Your task to perform on an android device: delete browsing data in the chrome app Image 0: 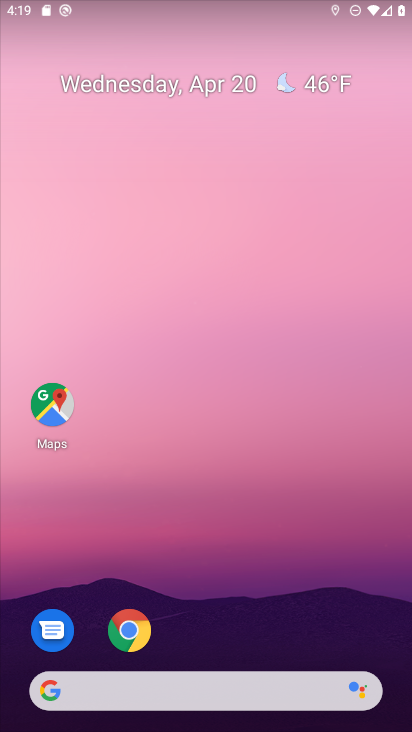
Step 0: click (240, 5)
Your task to perform on an android device: delete browsing data in the chrome app Image 1: 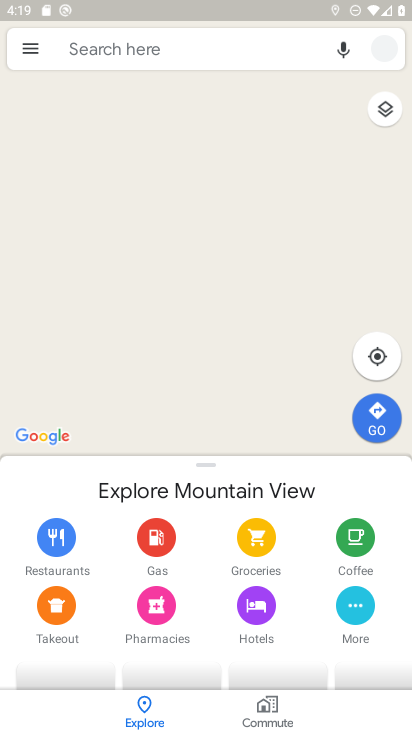
Step 1: press home button
Your task to perform on an android device: delete browsing data in the chrome app Image 2: 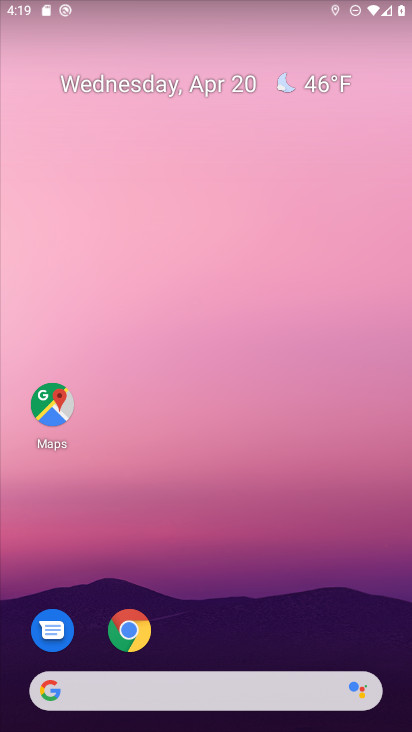
Step 2: drag from (259, 610) to (320, 19)
Your task to perform on an android device: delete browsing data in the chrome app Image 3: 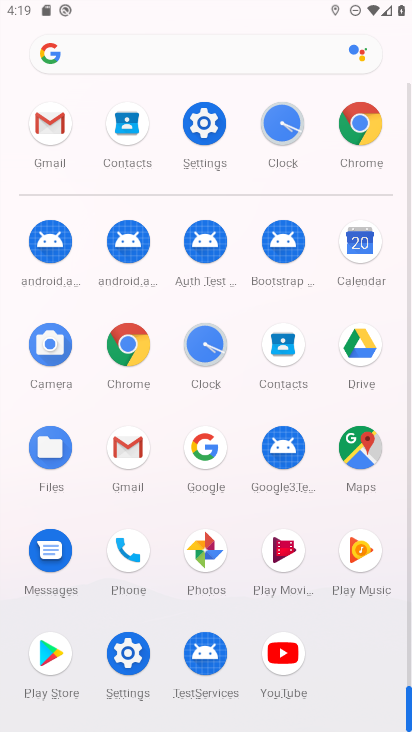
Step 3: click (125, 353)
Your task to perform on an android device: delete browsing data in the chrome app Image 4: 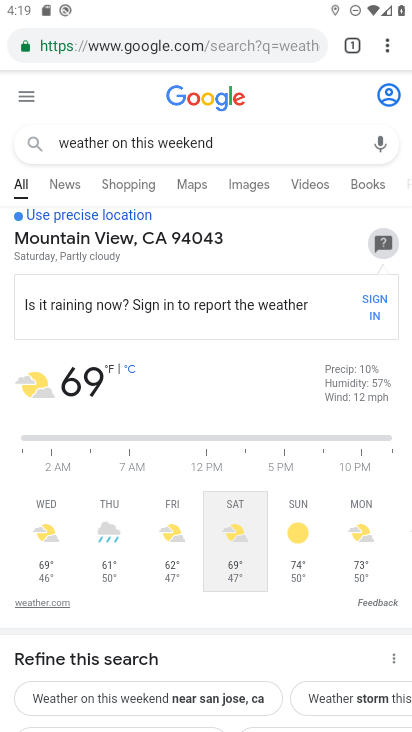
Step 4: click (380, 52)
Your task to perform on an android device: delete browsing data in the chrome app Image 5: 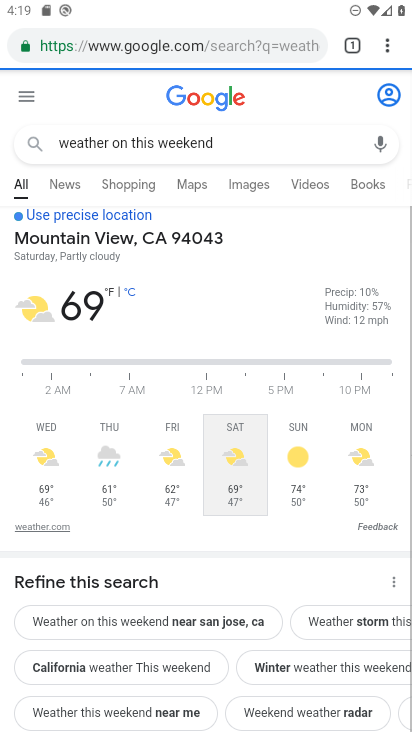
Step 5: drag from (381, 50) to (250, 306)
Your task to perform on an android device: delete browsing data in the chrome app Image 6: 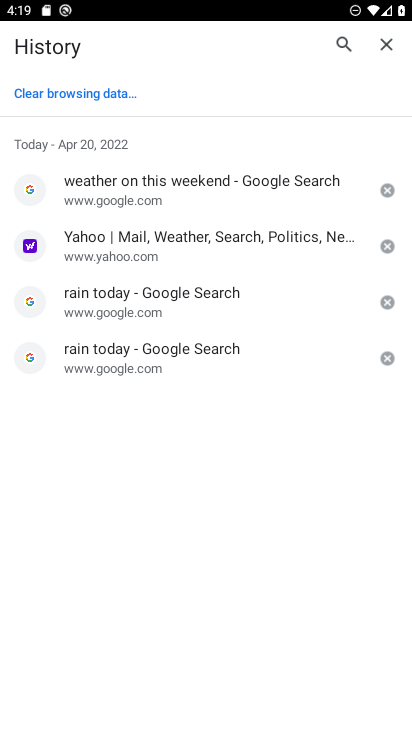
Step 6: click (68, 93)
Your task to perform on an android device: delete browsing data in the chrome app Image 7: 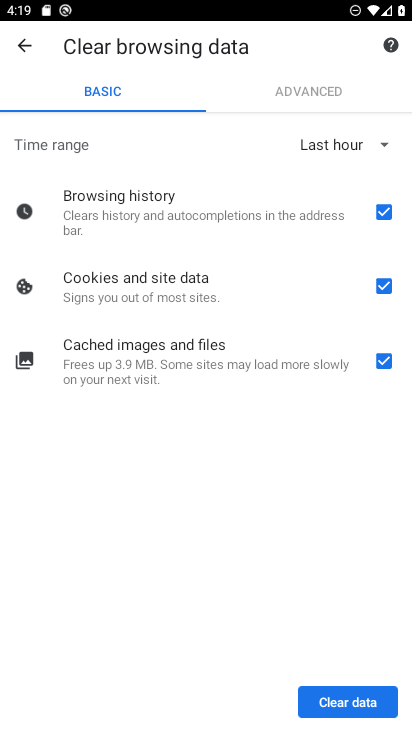
Step 7: click (361, 700)
Your task to perform on an android device: delete browsing data in the chrome app Image 8: 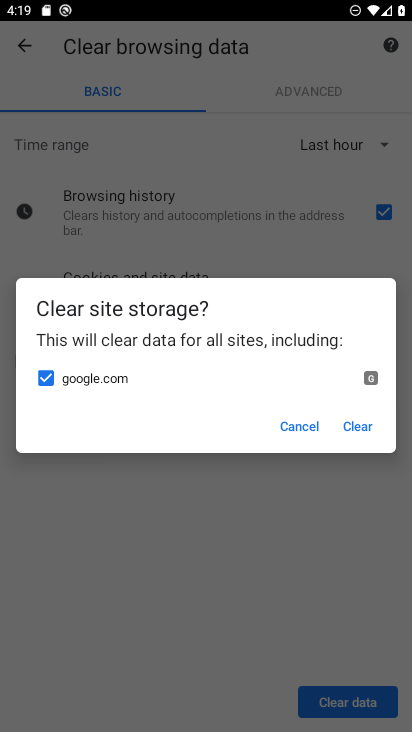
Step 8: click (356, 425)
Your task to perform on an android device: delete browsing data in the chrome app Image 9: 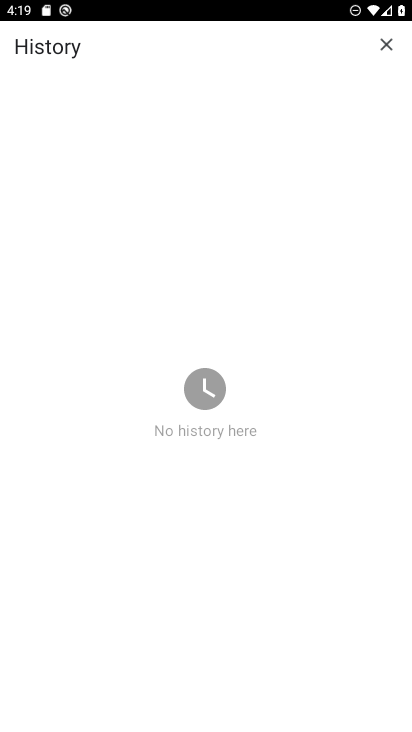
Step 9: task complete